Your task to perform on an android device: Show me the alarms in the clock app Image 0: 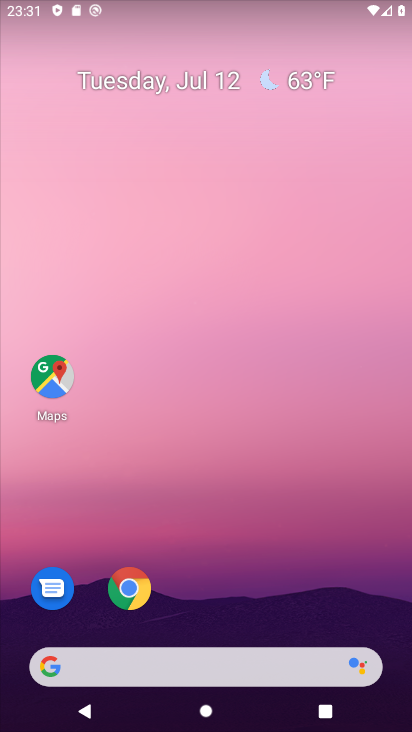
Step 0: drag from (27, 695) to (291, 60)
Your task to perform on an android device: Show me the alarms in the clock app Image 1: 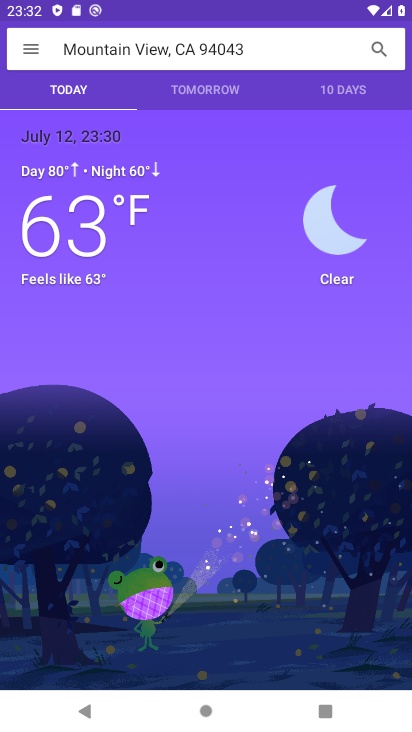
Step 1: press home button
Your task to perform on an android device: Show me the alarms in the clock app Image 2: 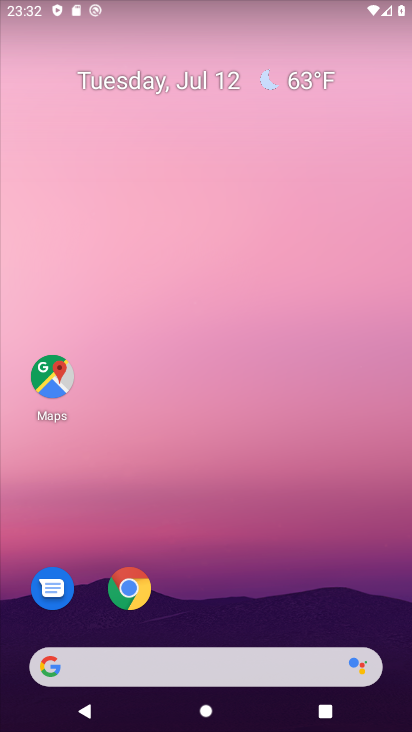
Step 2: drag from (40, 720) to (266, 22)
Your task to perform on an android device: Show me the alarms in the clock app Image 3: 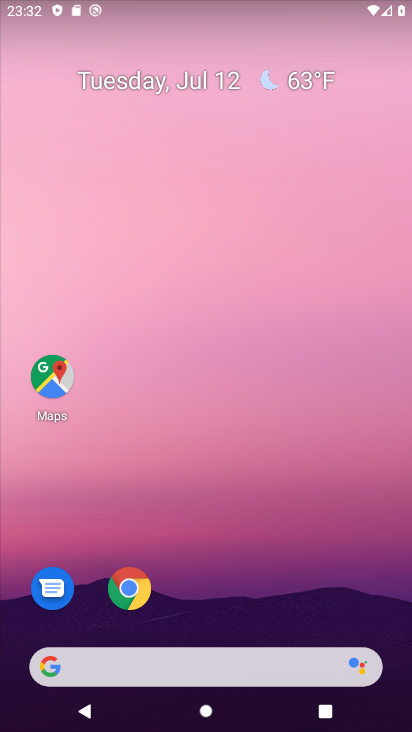
Step 3: drag from (32, 706) to (218, 30)
Your task to perform on an android device: Show me the alarms in the clock app Image 4: 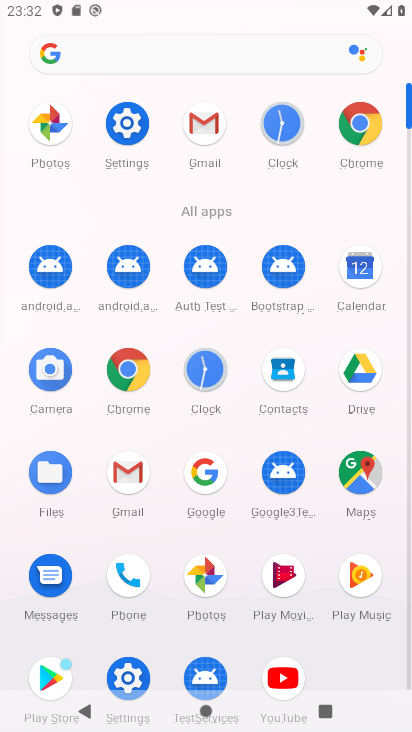
Step 4: click (218, 379)
Your task to perform on an android device: Show me the alarms in the clock app Image 5: 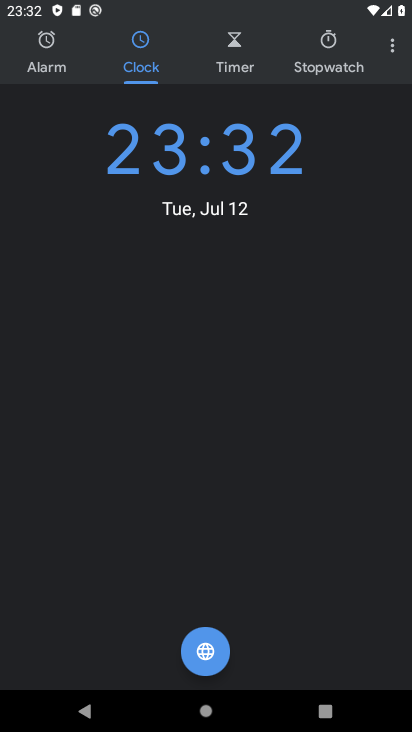
Step 5: click (40, 70)
Your task to perform on an android device: Show me the alarms in the clock app Image 6: 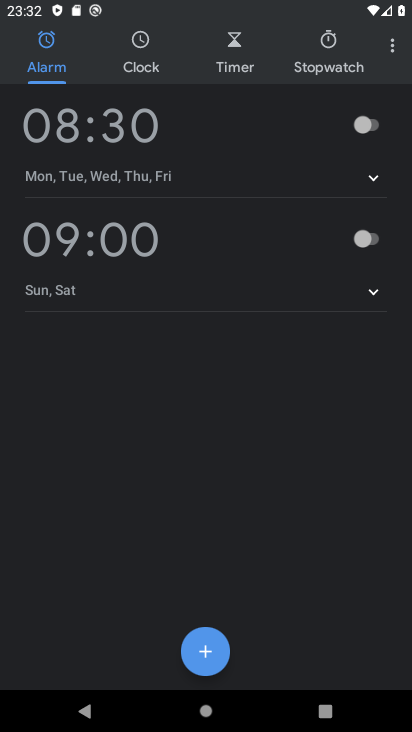
Step 6: task complete